Your task to perform on an android device: Open battery settings Image 0: 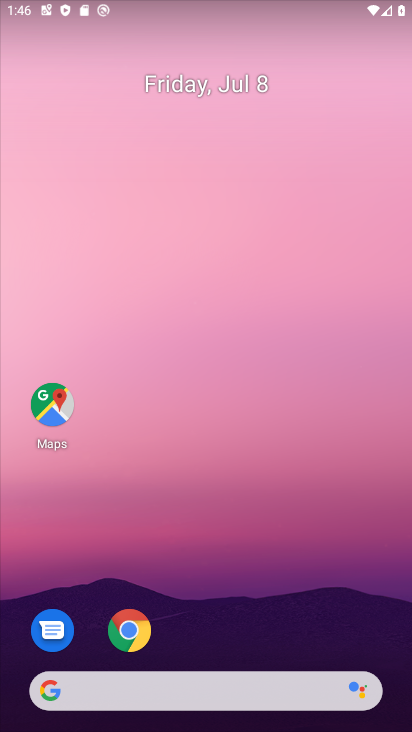
Step 0: press home button
Your task to perform on an android device: Open battery settings Image 1: 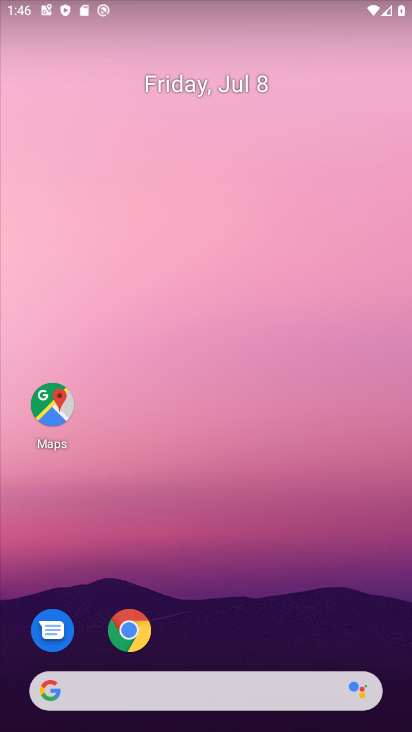
Step 1: drag from (217, 653) to (169, 40)
Your task to perform on an android device: Open battery settings Image 2: 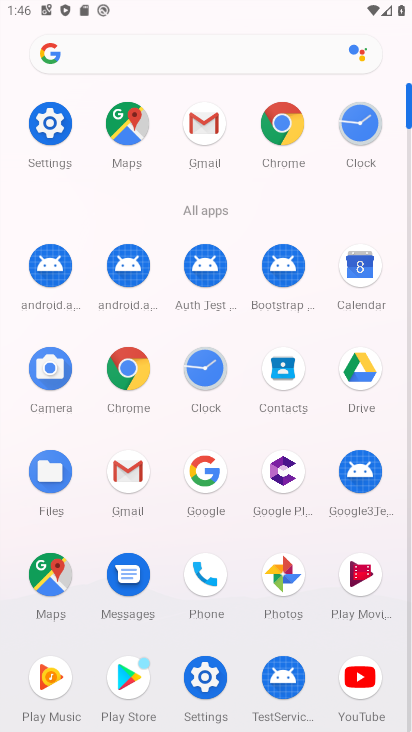
Step 2: click (50, 116)
Your task to perform on an android device: Open battery settings Image 3: 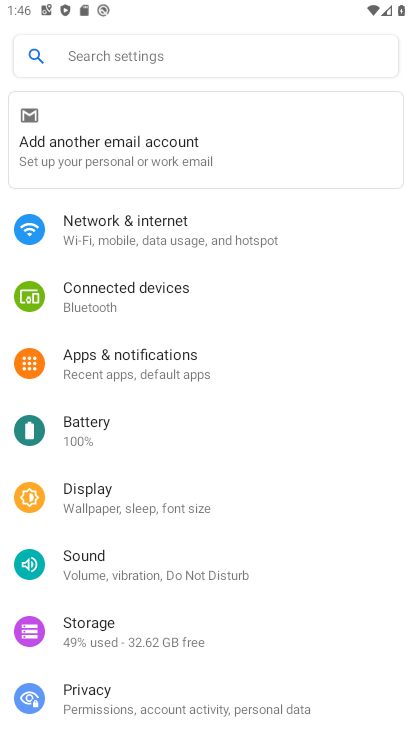
Step 3: click (123, 428)
Your task to perform on an android device: Open battery settings Image 4: 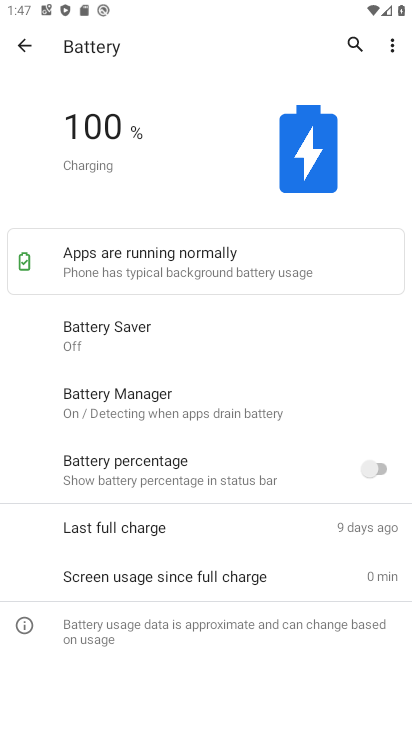
Step 4: task complete